Your task to perform on an android device: Go to Google maps Image 0: 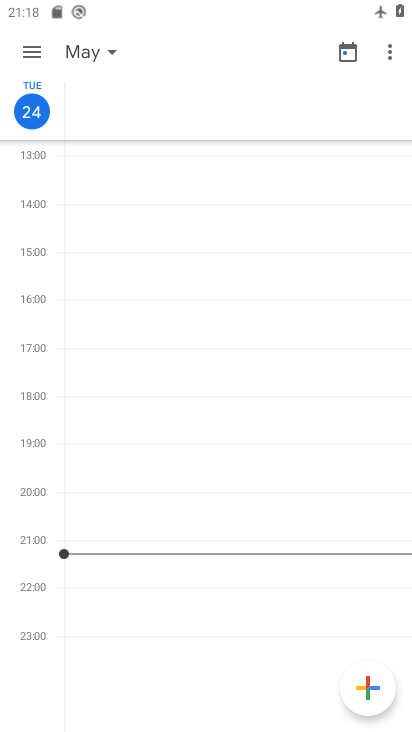
Step 0: press home button
Your task to perform on an android device: Go to Google maps Image 1: 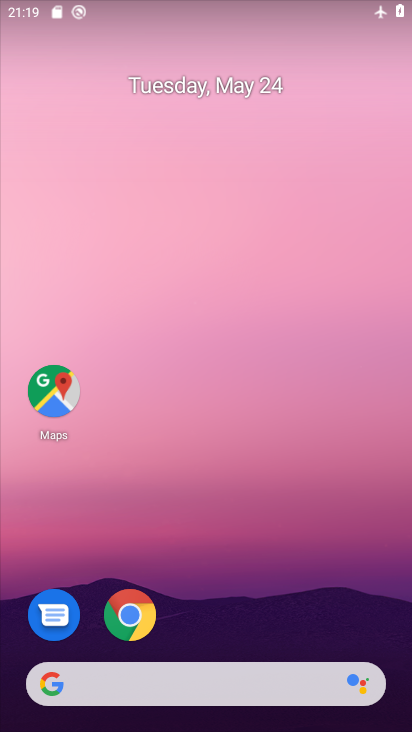
Step 1: drag from (232, 581) to (232, 256)
Your task to perform on an android device: Go to Google maps Image 2: 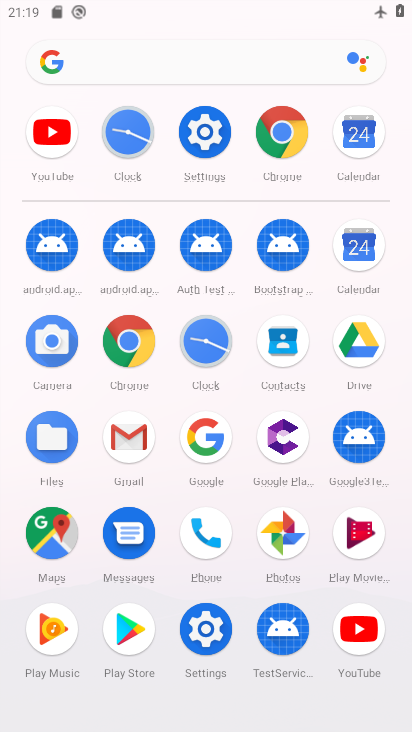
Step 2: click (56, 526)
Your task to perform on an android device: Go to Google maps Image 3: 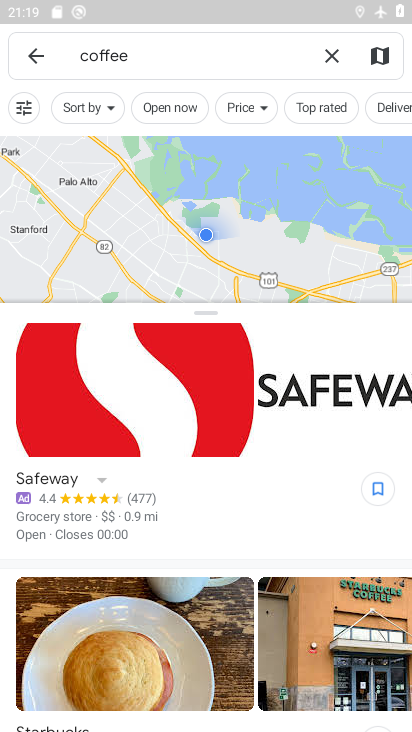
Step 3: click (340, 50)
Your task to perform on an android device: Go to Google maps Image 4: 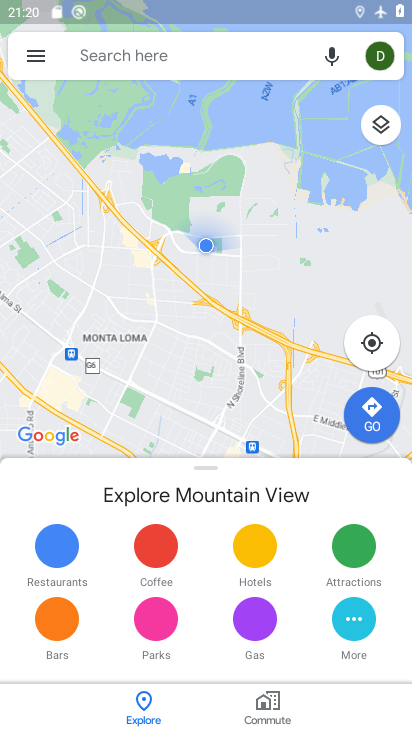
Step 4: task complete